Your task to perform on an android device: turn off improve location accuracy Image 0: 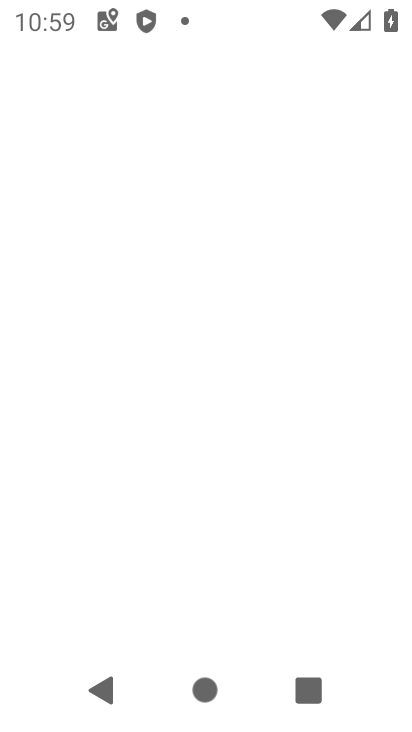
Step 0: drag from (181, 593) to (344, 156)
Your task to perform on an android device: turn off improve location accuracy Image 1: 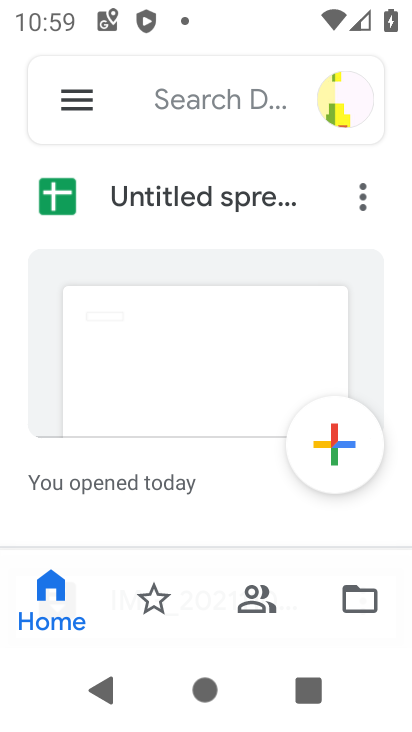
Step 1: press home button
Your task to perform on an android device: turn off improve location accuracy Image 2: 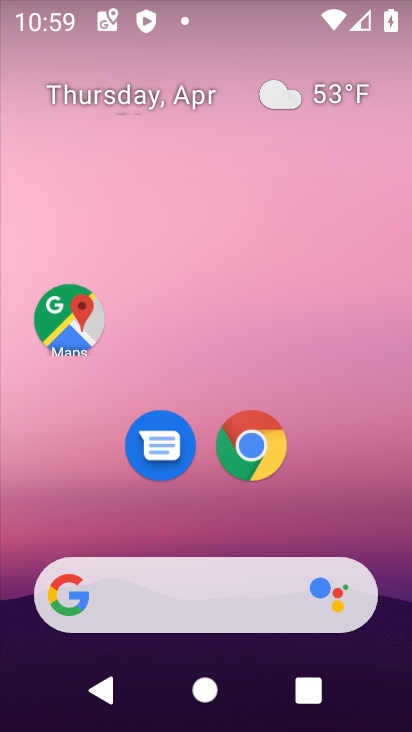
Step 2: drag from (145, 601) to (321, 21)
Your task to perform on an android device: turn off improve location accuracy Image 3: 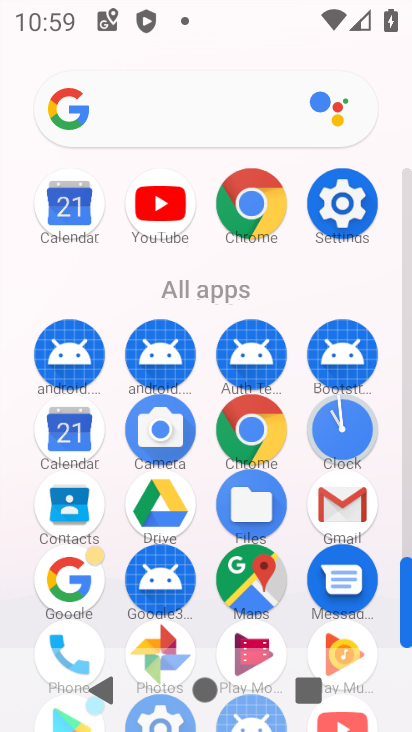
Step 3: click (355, 211)
Your task to perform on an android device: turn off improve location accuracy Image 4: 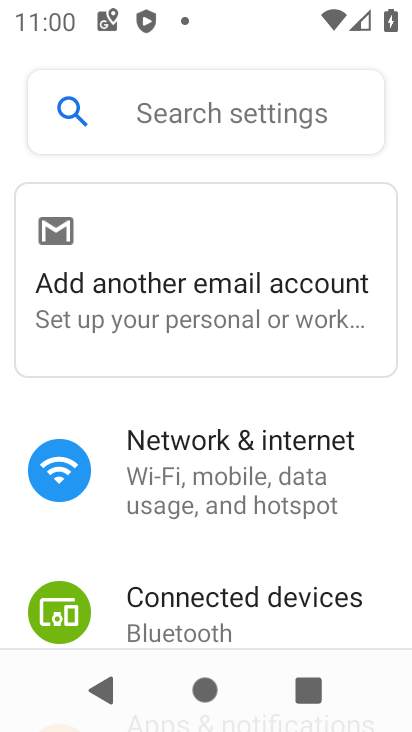
Step 4: drag from (179, 595) to (400, 100)
Your task to perform on an android device: turn off improve location accuracy Image 5: 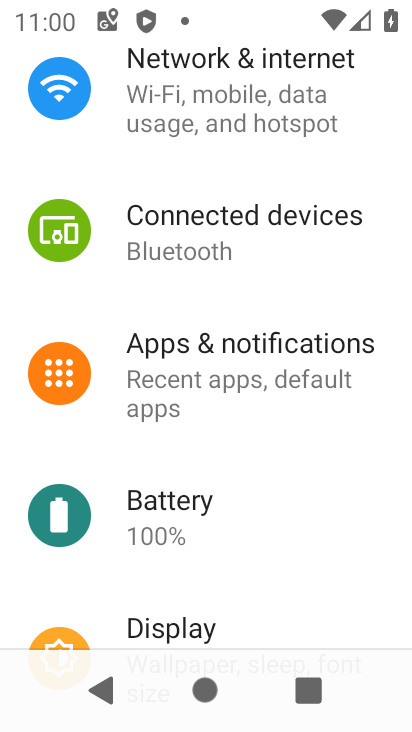
Step 5: drag from (202, 604) to (386, 116)
Your task to perform on an android device: turn off improve location accuracy Image 6: 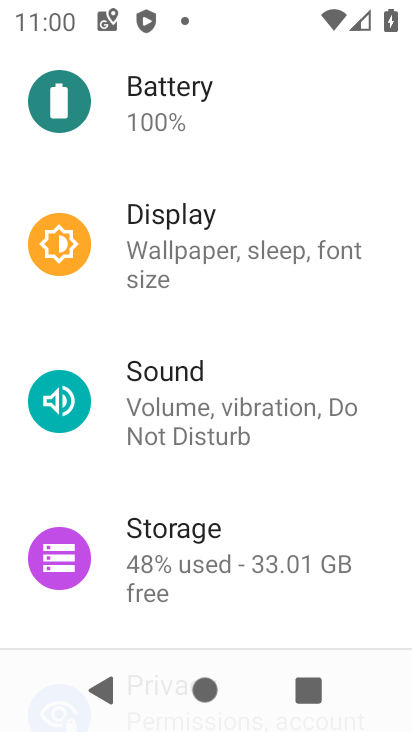
Step 6: drag from (212, 622) to (375, 318)
Your task to perform on an android device: turn off improve location accuracy Image 7: 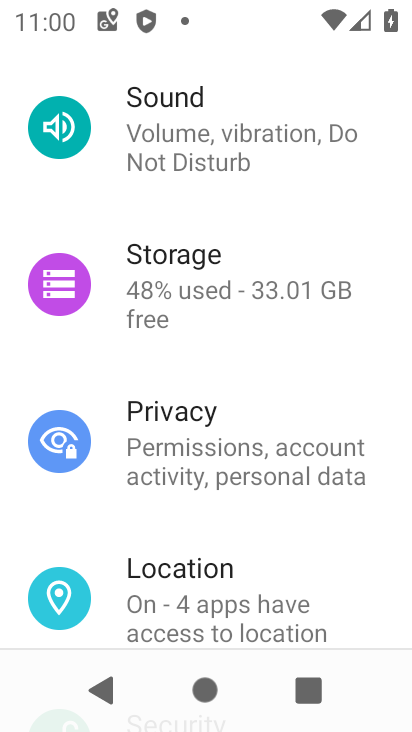
Step 7: click (208, 619)
Your task to perform on an android device: turn off improve location accuracy Image 8: 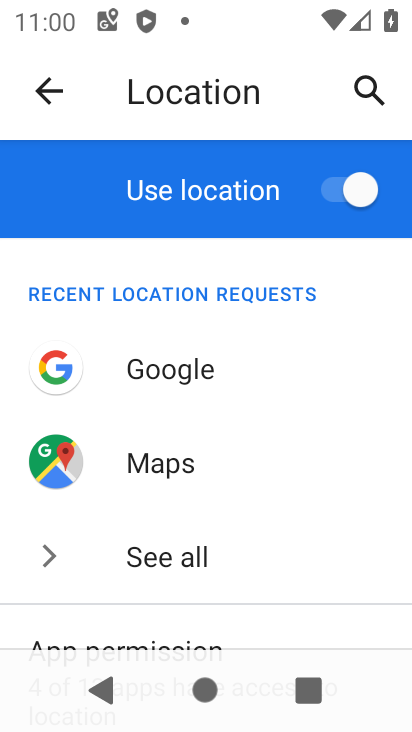
Step 8: drag from (250, 542) to (396, 18)
Your task to perform on an android device: turn off improve location accuracy Image 9: 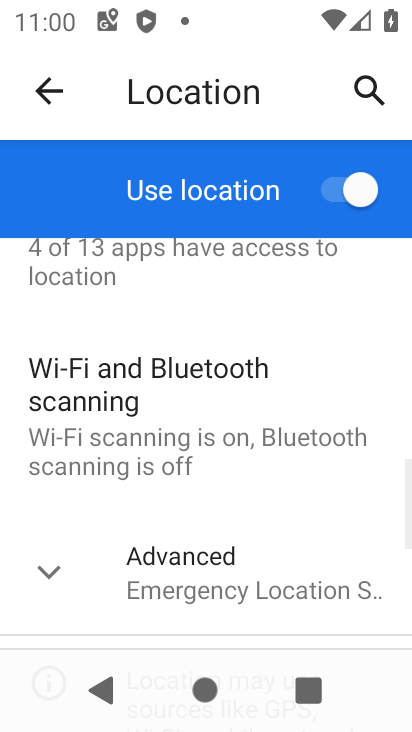
Step 9: drag from (76, 579) to (289, 283)
Your task to perform on an android device: turn off improve location accuracy Image 10: 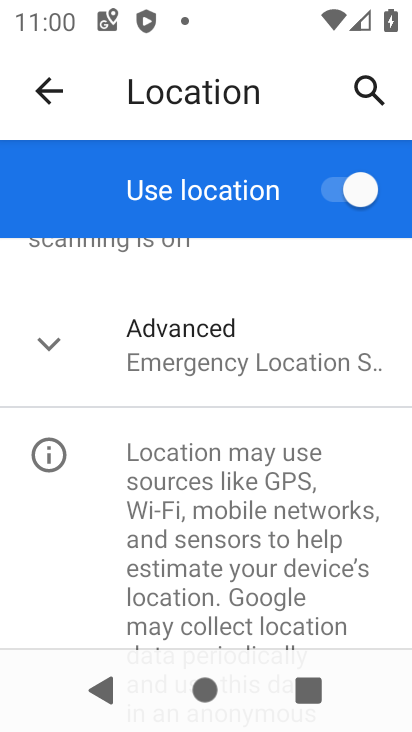
Step 10: click (151, 366)
Your task to perform on an android device: turn off improve location accuracy Image 11: 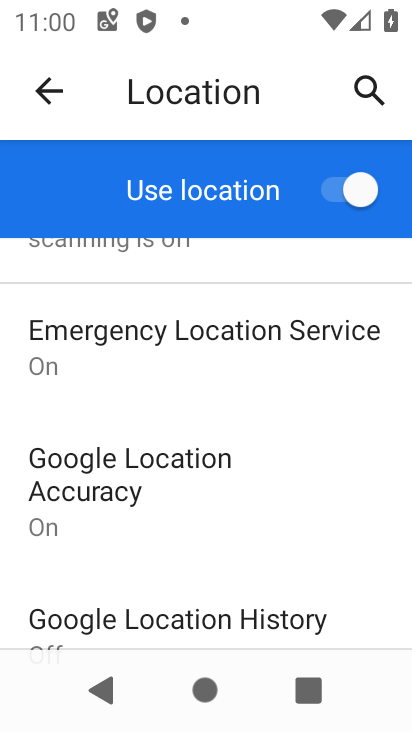
Step 11: click (102, 489)
Your task to perform on an android device: turn off improve location accuracy Image 12: 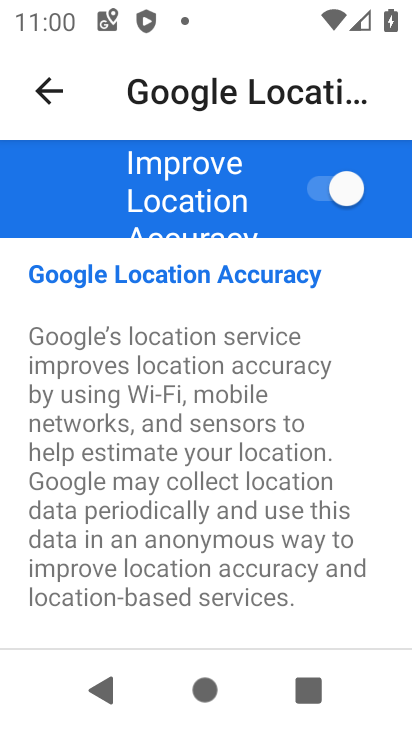
Step 12: click (320, 191)
Your task to perform on an android device: turn off improve location accuracy Image 13: 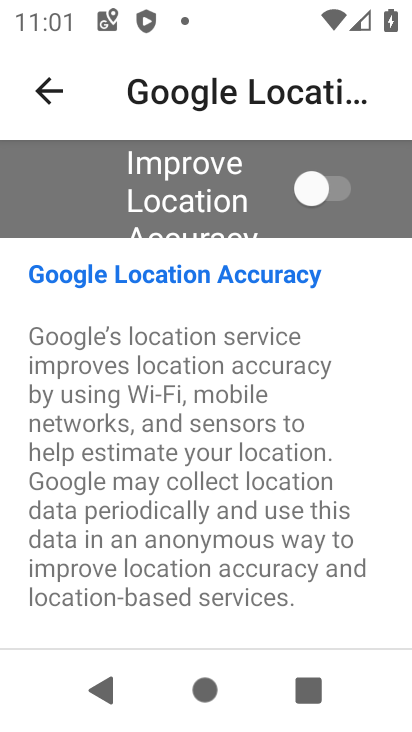
Step 13: task complete